Your task to perform on an android device: turn notification dots off Image 0: 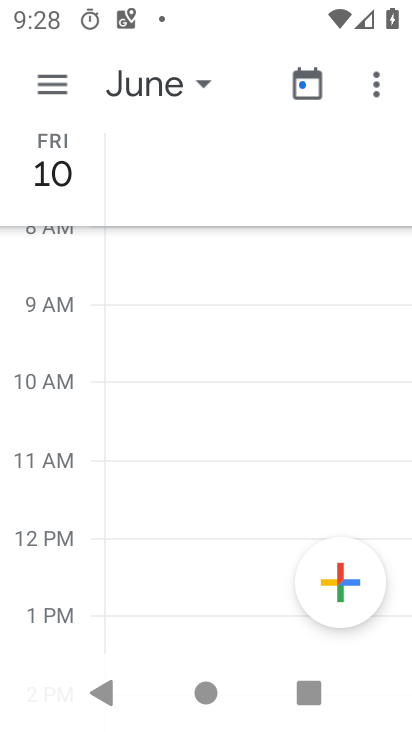
Step 0: press home button
Your task to perform on an android device: turn notification dots off Image 1: 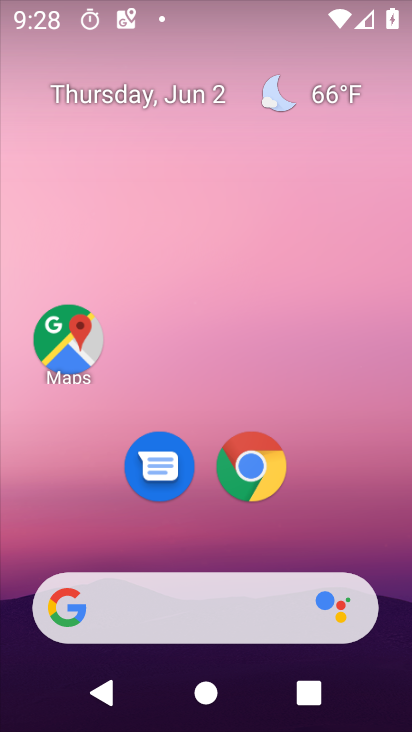
Step 1: drag from (33, 587) to (242, 125)
Your task to perform on an android device: turn notification dots off Image 2: 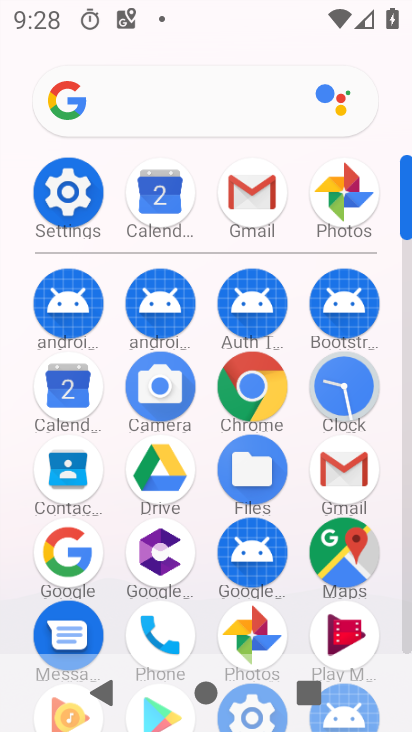
Step 2: click (84, 176)
Your task to perform on an android device: turn notification dots off Image 3: 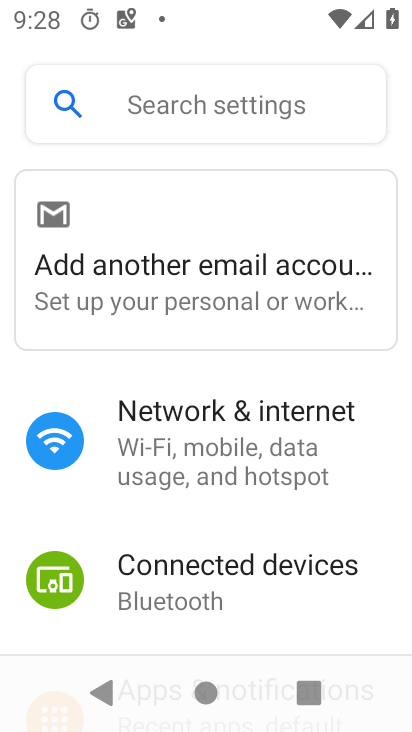
Step 3: drag from (1, 595) to (239, 108)
Your task to perform on an android device: turn notification dots off Image 4: 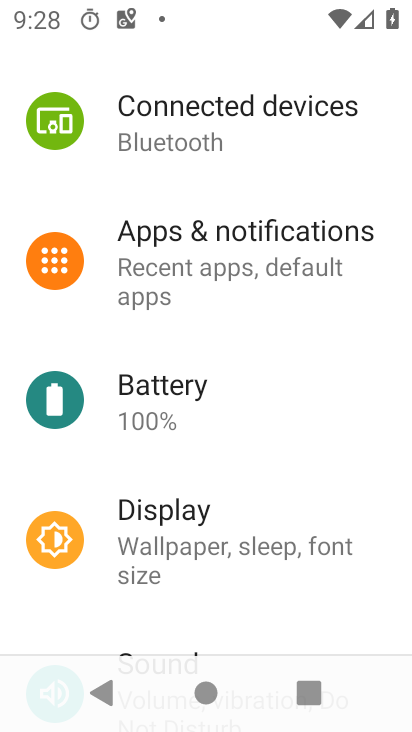
Step 4: click (250, 231)
Your task to perform on an android device: turn notification dots off Image 5: 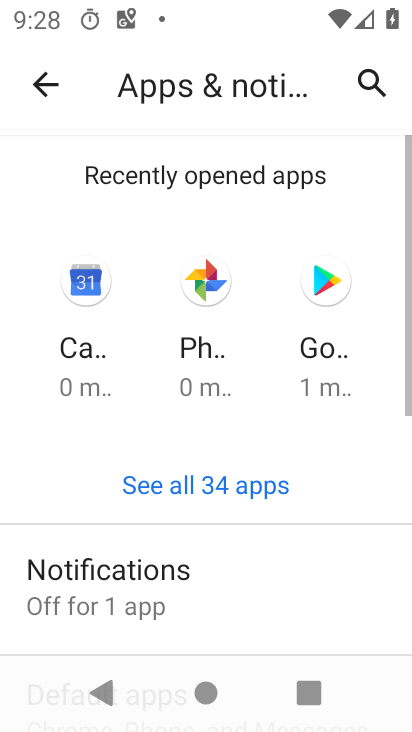
Step 5: click (112, 607)
Your task to perform on an android device: turn notification dots off Image 6: 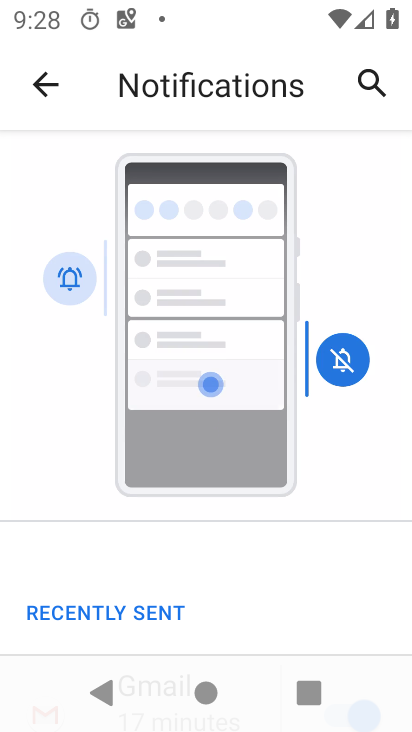
Step 6: drag from (36, 516) to (281, 122)
Your task to perform on an android device: turn notification dots off Image 7: 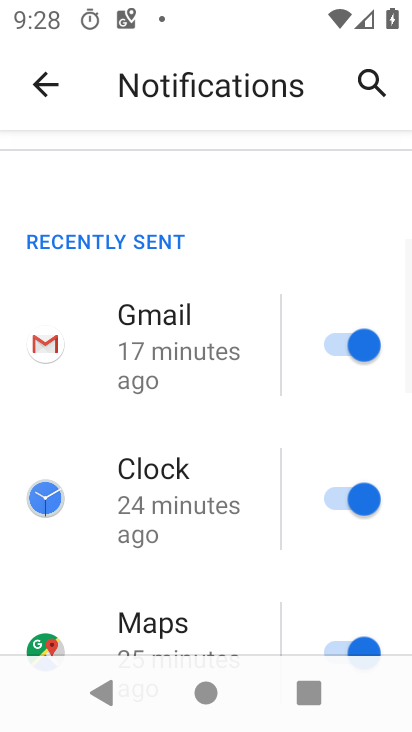
Step 7: drag from (37, 659) to (386, 193)
Your task to perform on an android device: turn notification dots off Image 8: 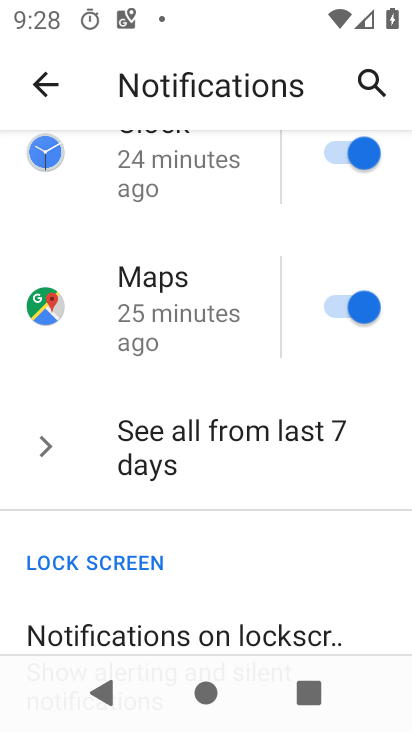
Step 8: drag from (1, 644) to (332, 197)
Your task to perform on an android device: turn notification dots off Image 9: 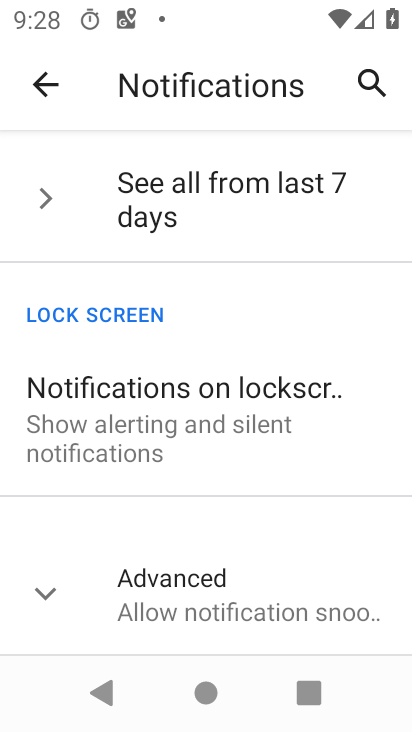
Step 9: click (159, 590)
Your task to perform on an android device: turn notification dots off Image 10: 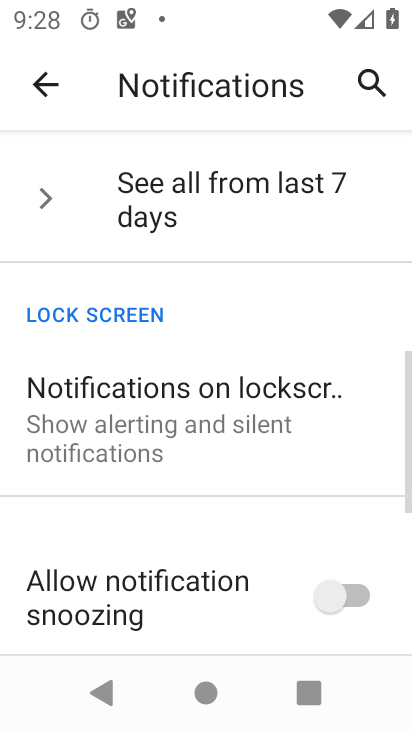
Step 10: task complete